Your task to perform on an android device: Open Chrome and go to the settings page Image 0: 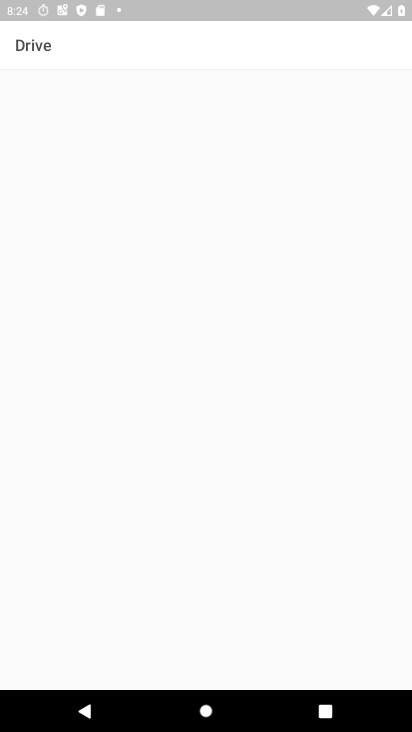
Step 0: press home button
Your task to perform on an android device: Open Chrome and go to the settings page Image 1: 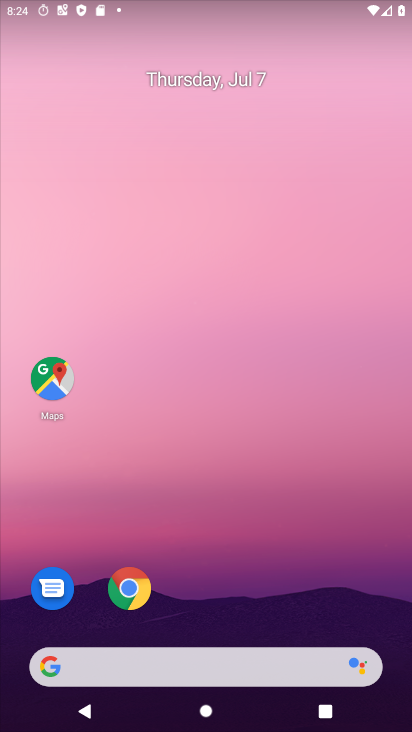
Step 1: click (121, 585)
Your task to perform on an android device: Open Chrome and go to the settings page Image 2: 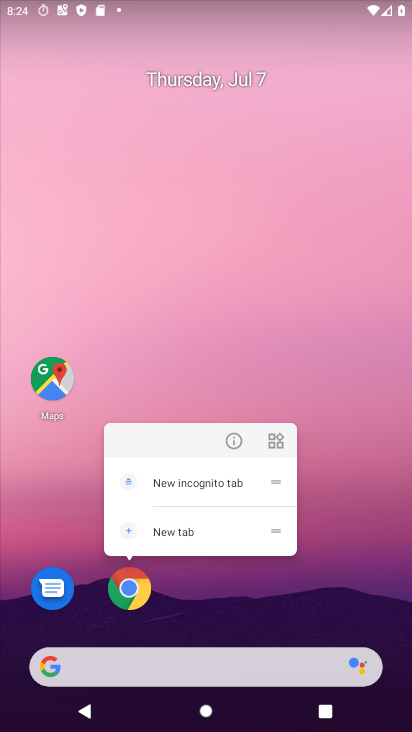
Step 2: click (121, 585)
Your task to perform on an android device: Open Chrome and go to the settings page Image 3: 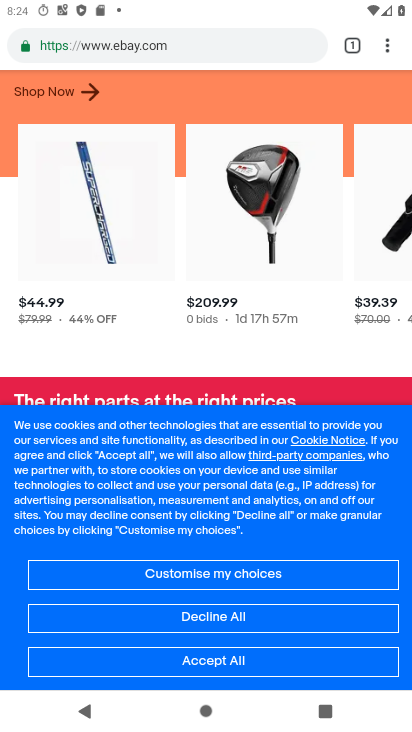
Step 3: task complete